Your task to perform on an android device: check google app version Image 0: 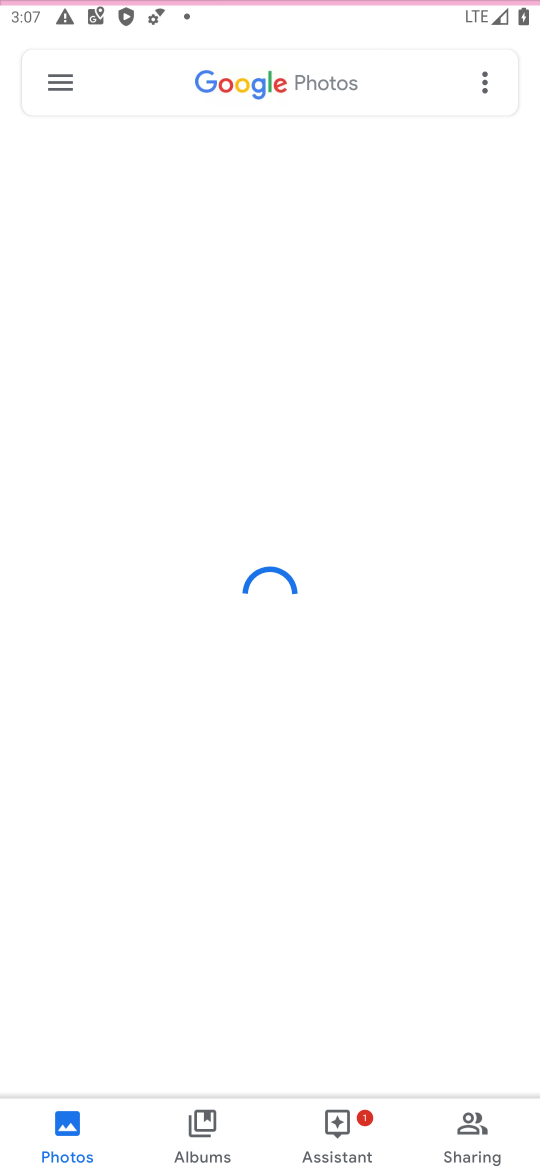
Step 0: click (417, 1045)
Your task to perform on an android device: check google app version Image 1: 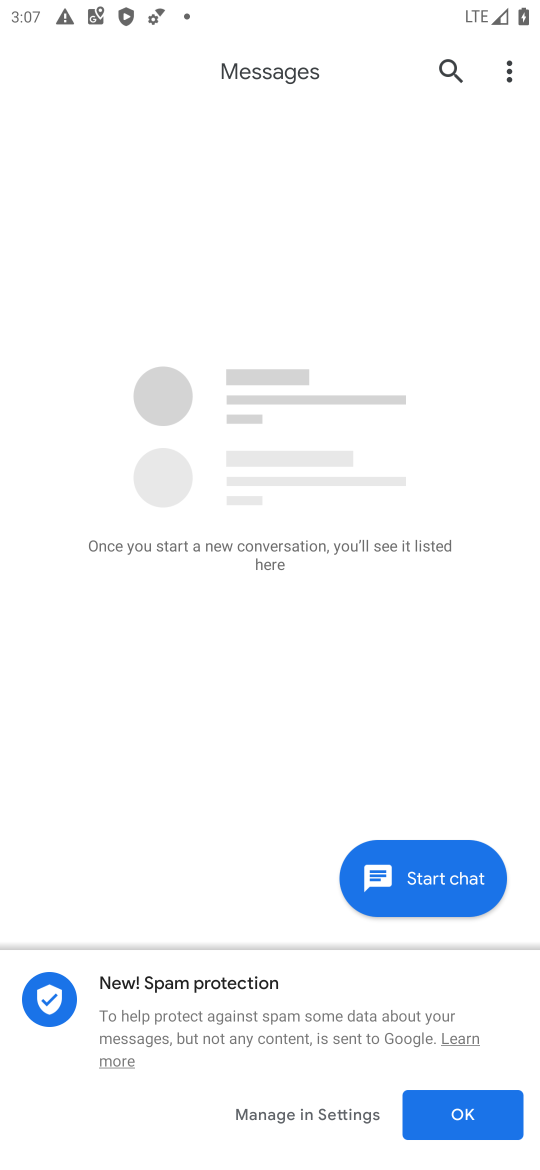
Step 1: press home button
Your task to perform on an android device: check google app version Image 2: 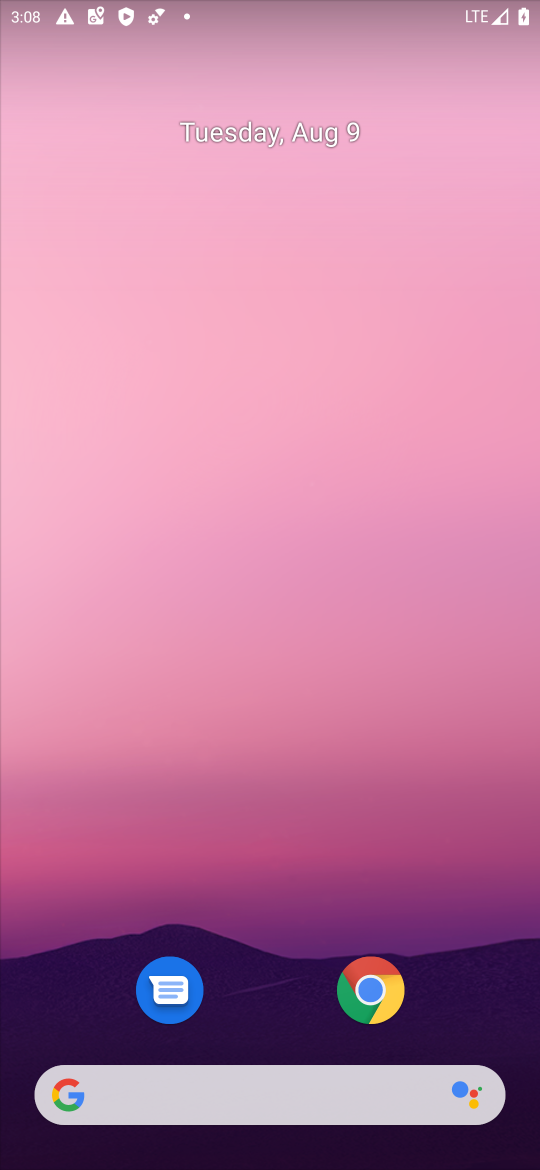
Step 2: drag from (259, 1109) to (333, 215)
Your task to perform on an android device: check google app version Image 3: 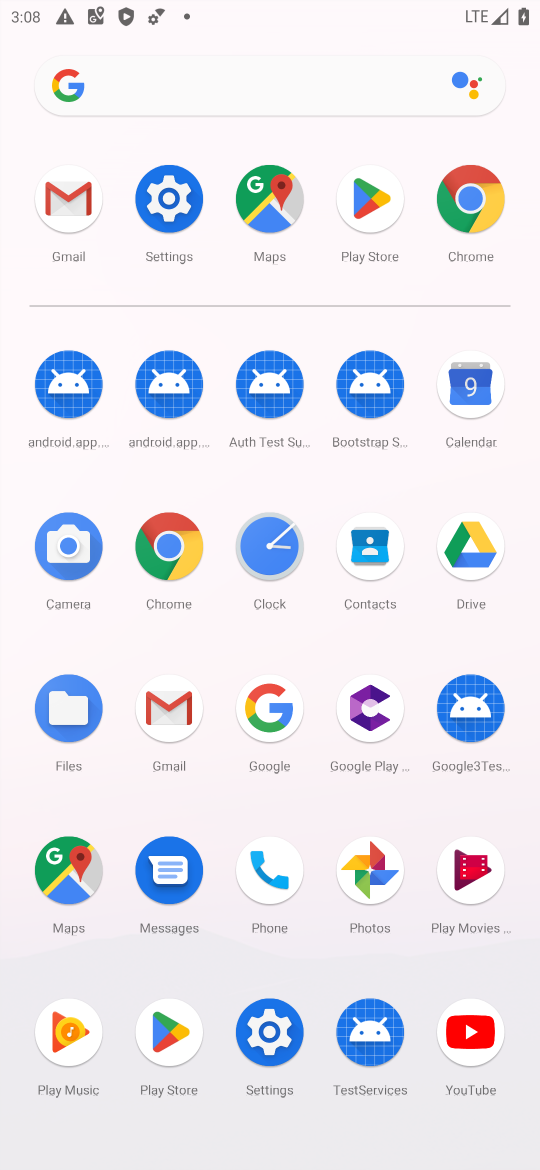
Step 3: click (203, 561)
Your task to perform on an android device: check google app version Image 4: 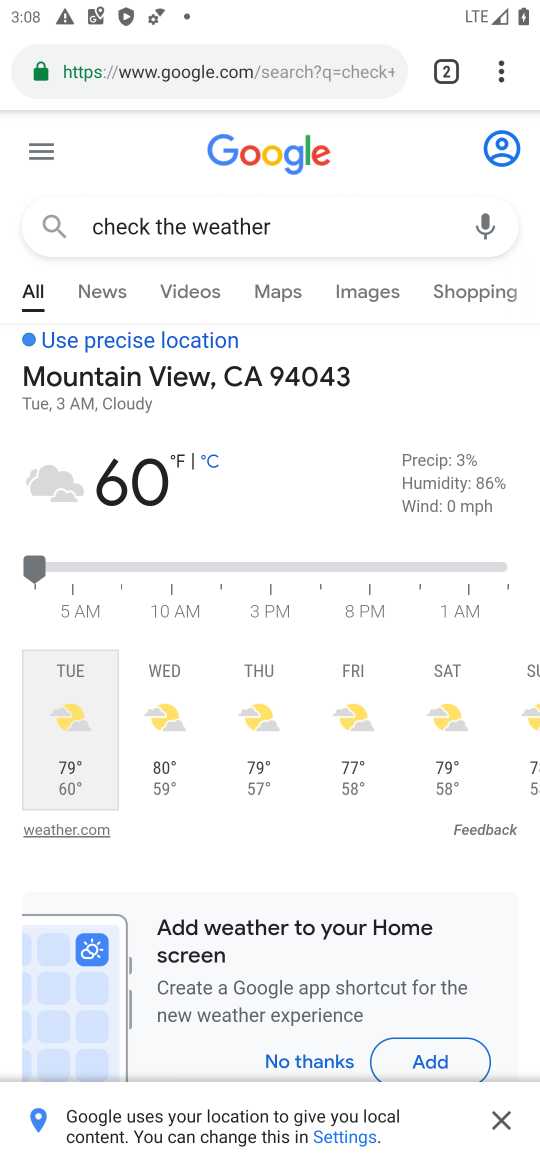
Step 4: click (499, 57)
Your task to perform on an android device: check google app version Image 5: 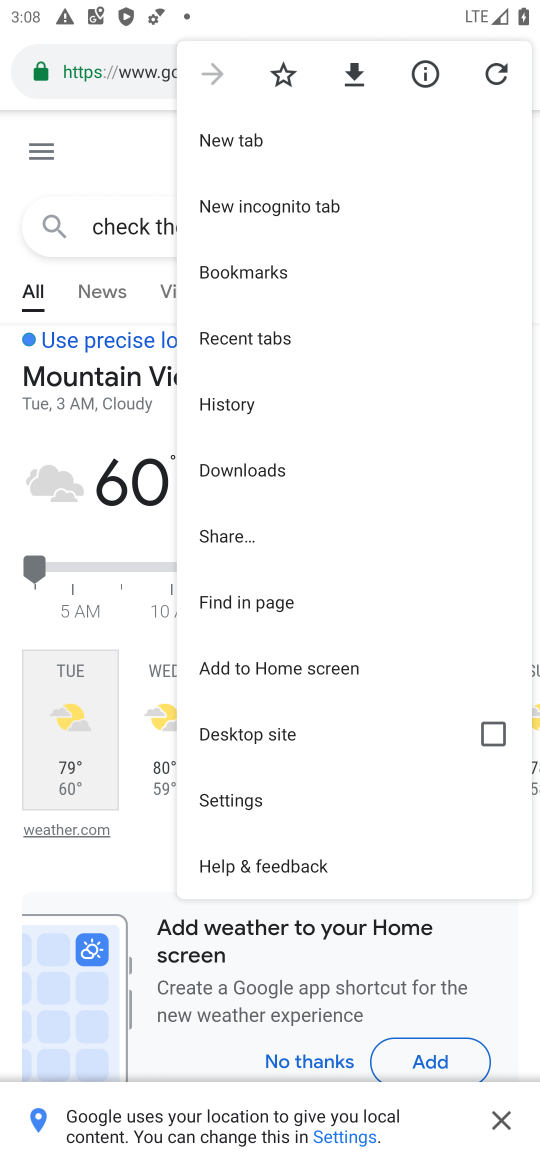
Step 5: click (256, 844)
Your task to perform on an android device: check google app version Image 6: 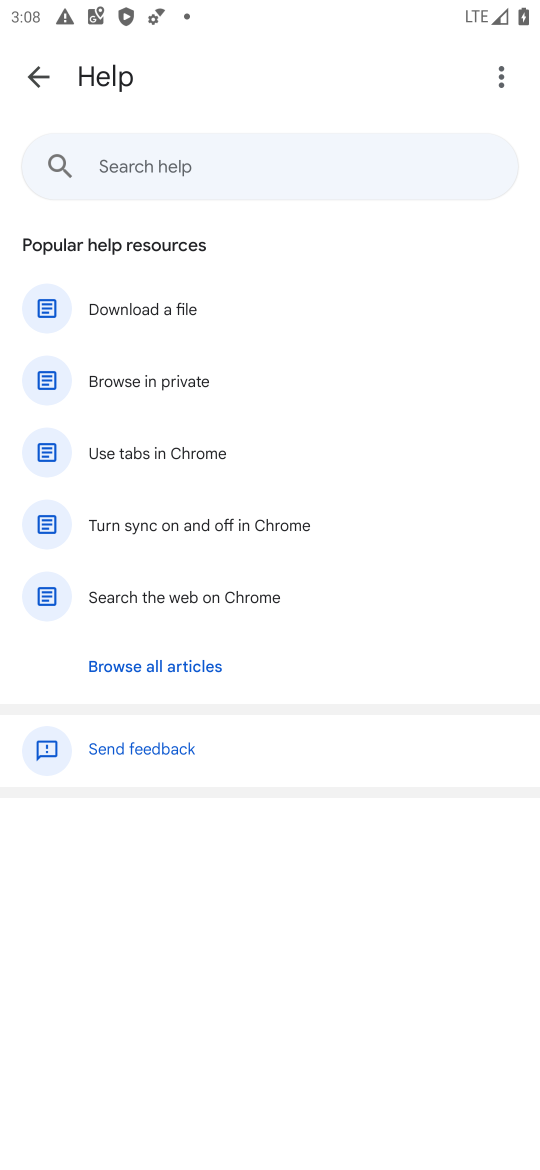
Step 6: click (503, 77)
Your task to perform on an android device: check google app version Image 7: 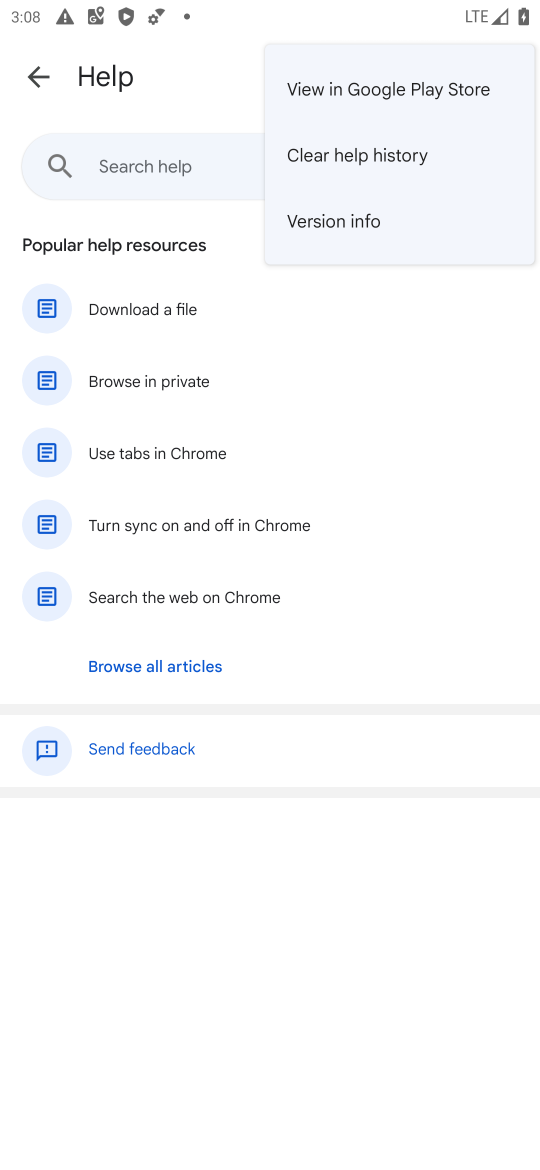
Step 7: click (355, 205)
Your task to perform on an android device: check google app version Image 8: 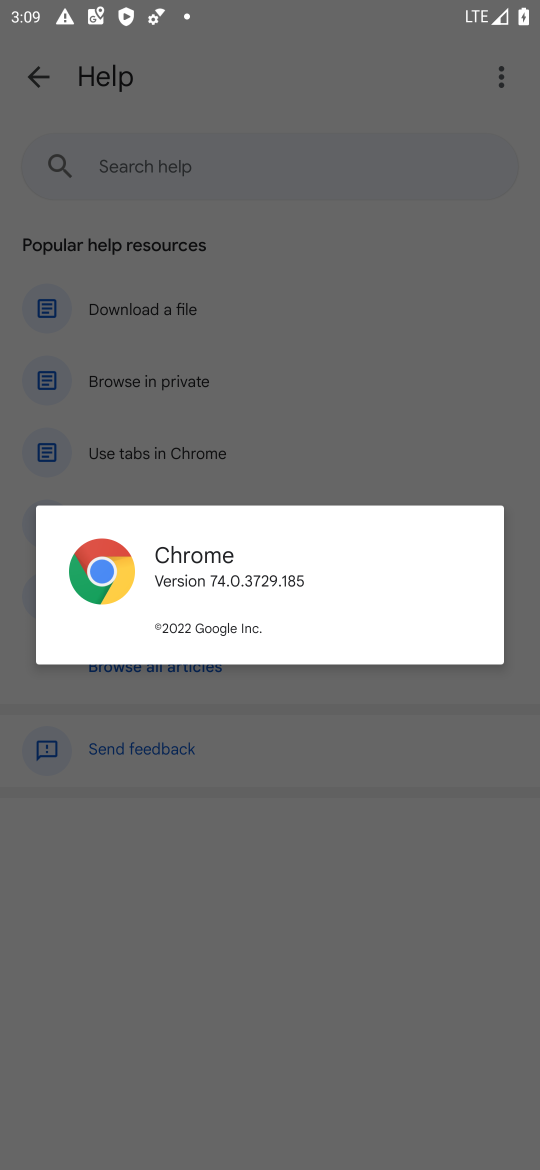
Step 8: task complete